Your task to perform on an android device: change notification settings in the gmail app Image 0: 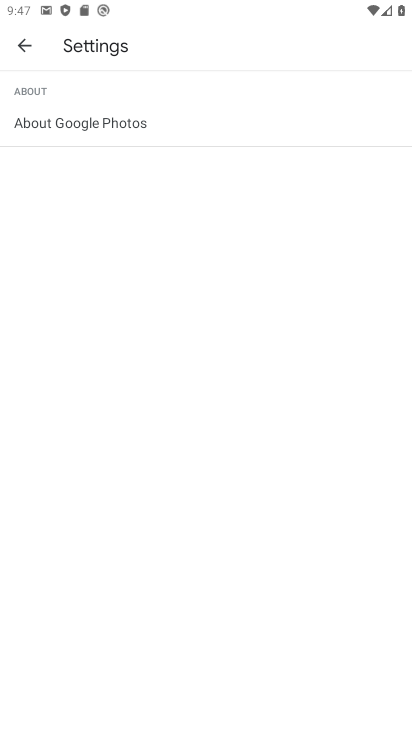
Step 0: drag from (229, 688) to (201, 169)
Your task to perform on an android device: change notification settings in the gmail app Image 1: 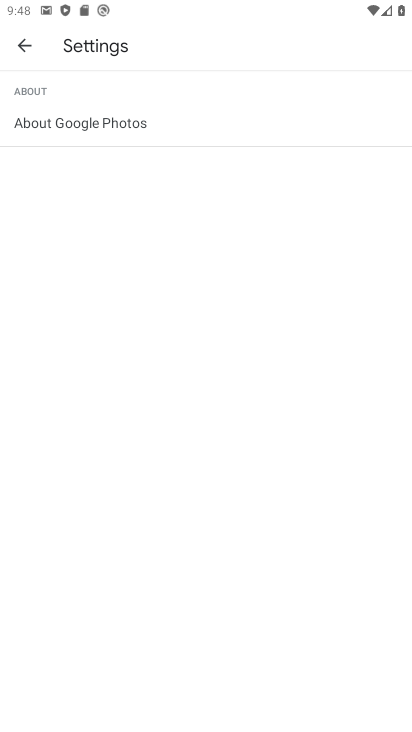
Step 1: click (158, 204)
Your task to perform on an android device: change notification settings in the gmail app Image 2: 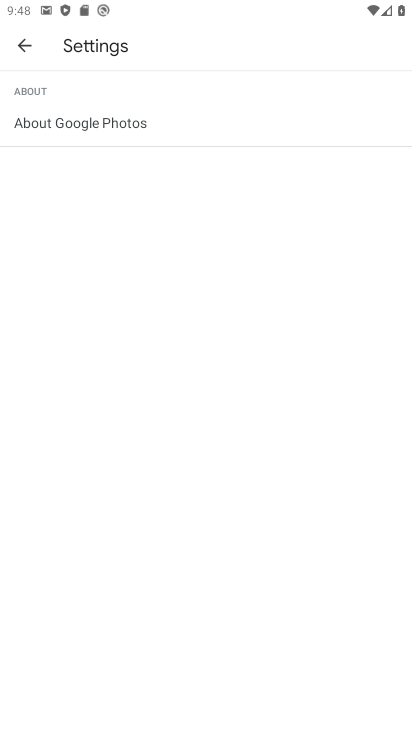
Step 2: press home button
Your task to perform on an android device: change notification settings in the gmail app Image 3: 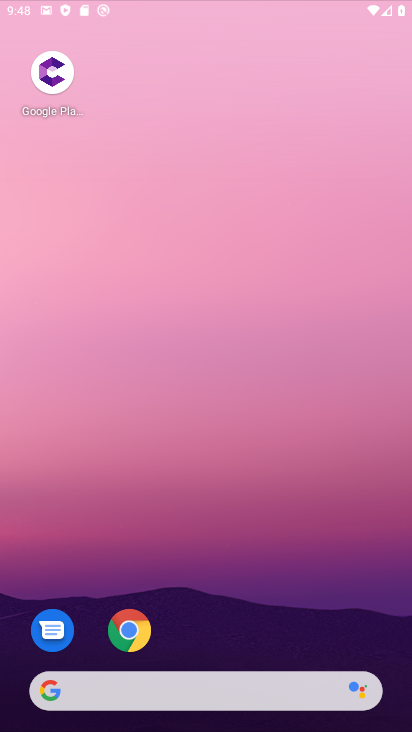
Step 3: drag from (193, 690) to (256, 155)
Your task to perform on an android device: change notification settings in the gmail app Image 4: 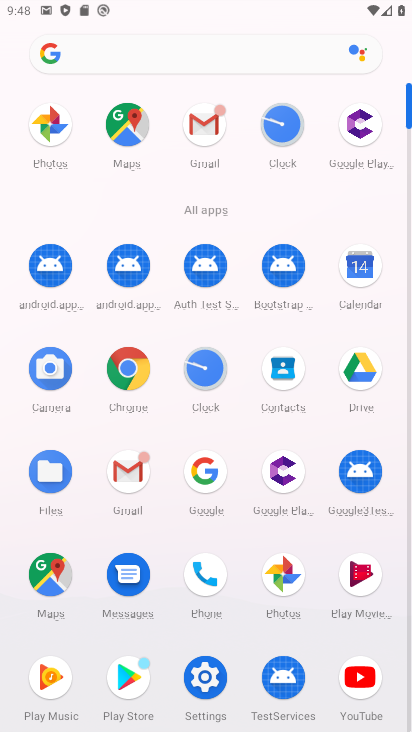
Step 4: click (117, 461)
Your task to perform on an android device: change notification settings in the gmail app Image 5: 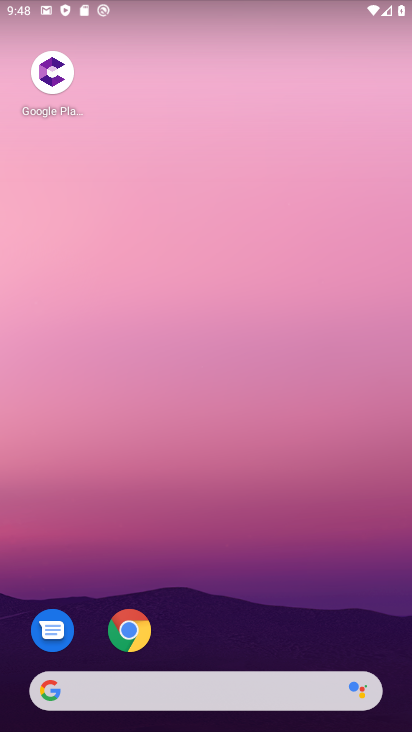
Step 5: drag from (216, 641) to (271, 195)
Your task to perform on an android device: change notification settings in the gmail app Image 6: 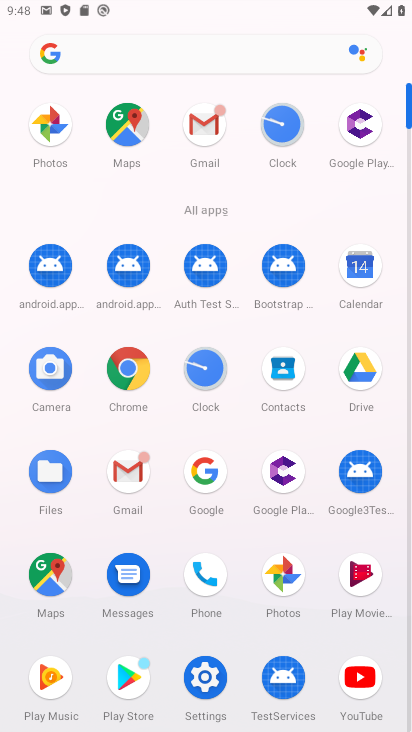
Step 6: click (120, 467)
Your task to perform on an android device: change notification settings in the gmail app Image 7: 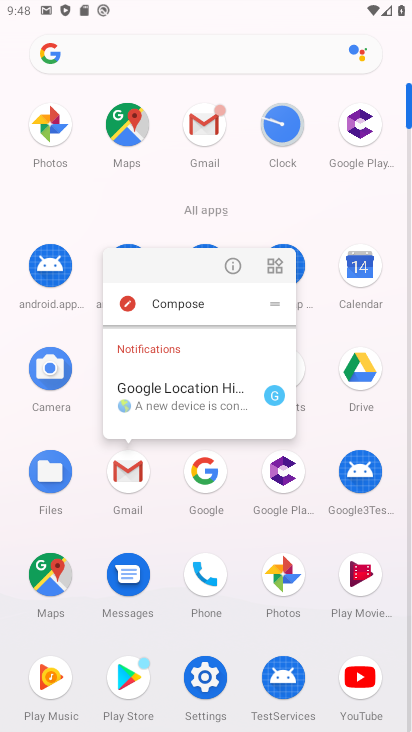
Step 7: click (226, 260)
Your task to perform on an android device: change notification settings in the gmail app Image 8: 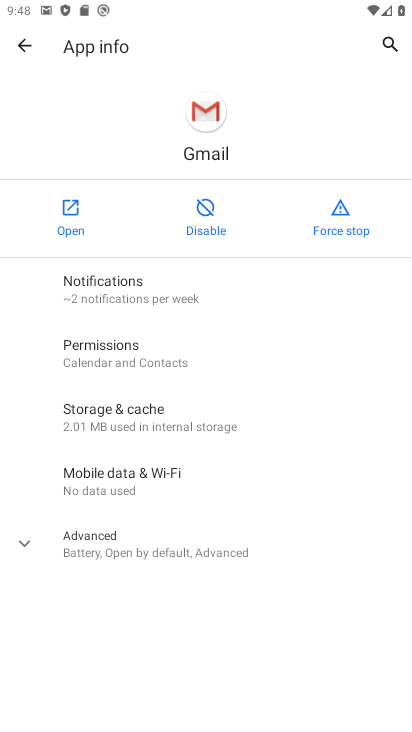
Step 8: click (84, 214)
Your task to perform on an android device: change notification settings in the gmail app Image 9: 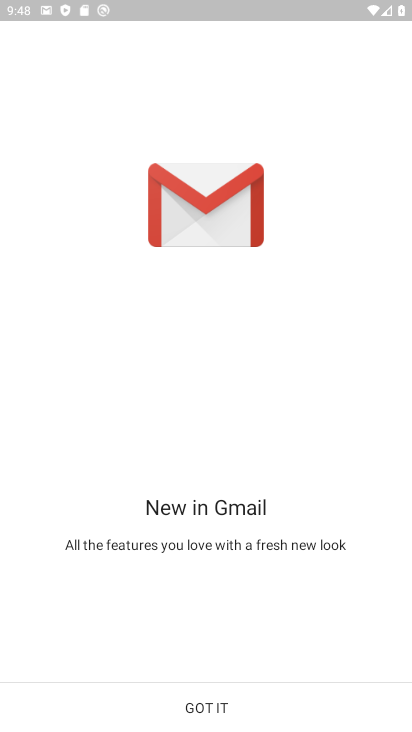
Step 9: click (216, 696)
Your task to perform on an android device: change notification settings in the gmail app Image 10: 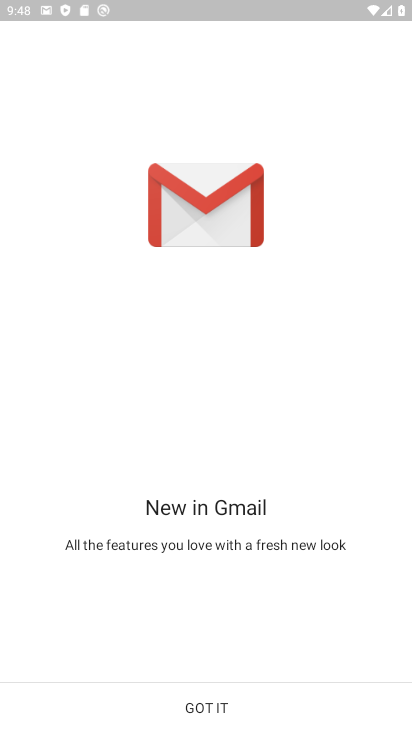
Step 10: click (218, 693)
Your task to perform on an android device: change notification settings in the gmail app Image 11: 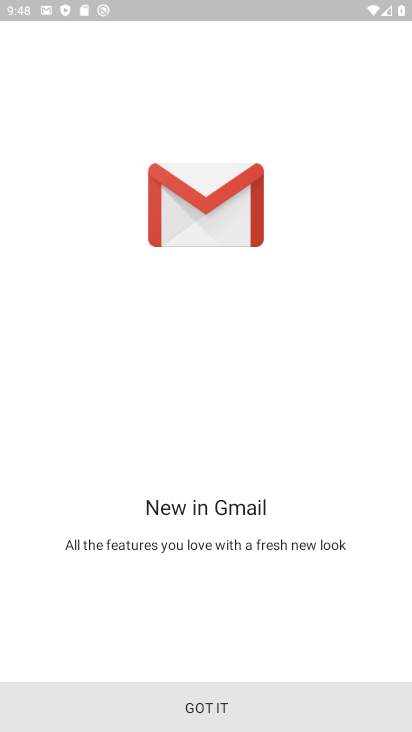
Step 11: click (218, 693)
Your task to perform on an android device: change notification settings in the gmail app Image 12: 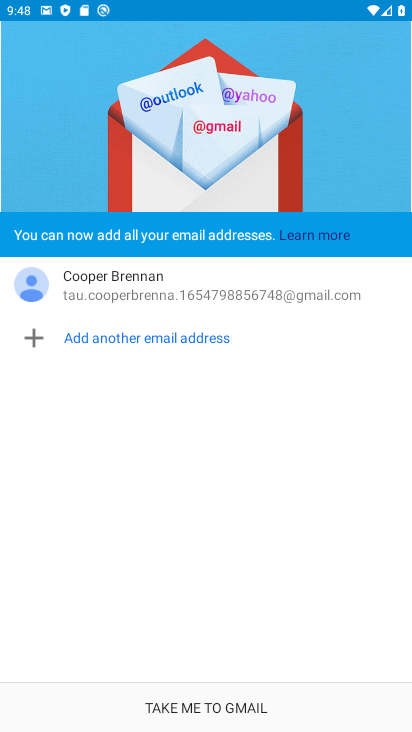
Step 12: click (204, 696)
Your task to perform on an android device: change notification settings in the gmail app Image 13: 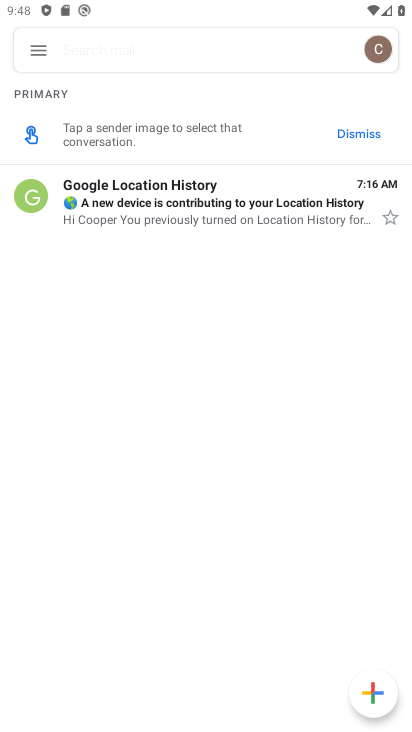
Step 13: drag from (223, 598) to (223, 382)
Your task to perform on an android device: change notification settings in the gmail app Image 14: 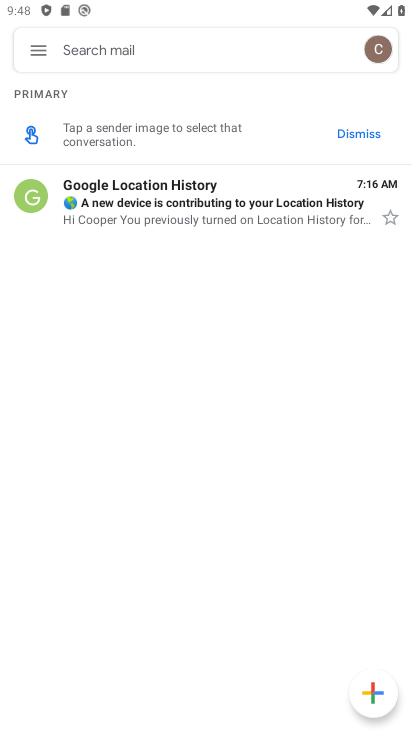
Step 14: click (47, 54)
Your task to perform on an android device: change notification settings in the gmail app Image 15: 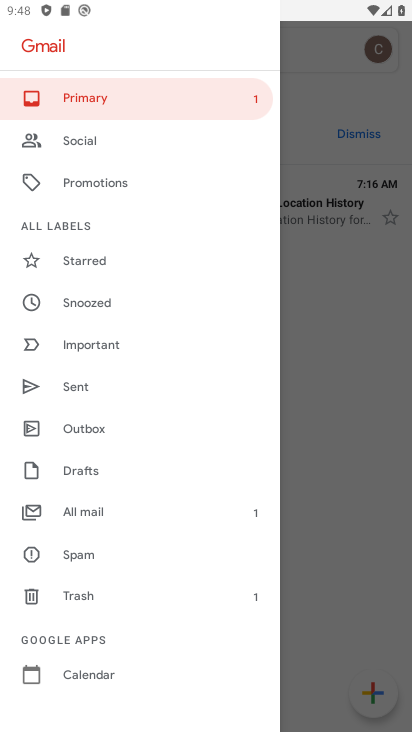
Step 15: drag from (146, 615) to (154, 327)
Your task to perform on an android device: change notification settings in the gmail app Image 16: 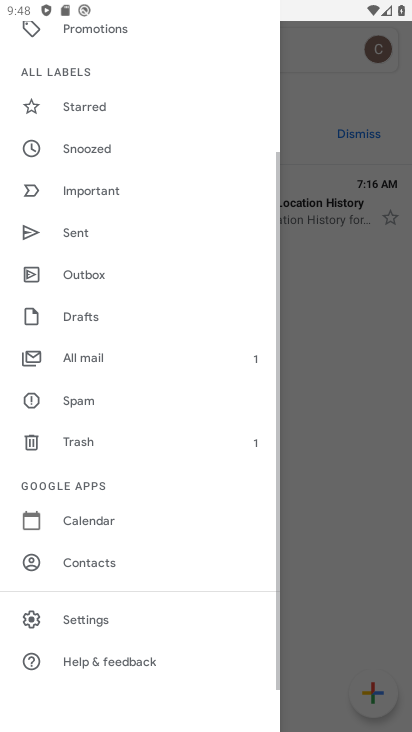
Step 16: click (99, 616)
Your task to perform on an android device: change notification settings in the gmail app Image 17: 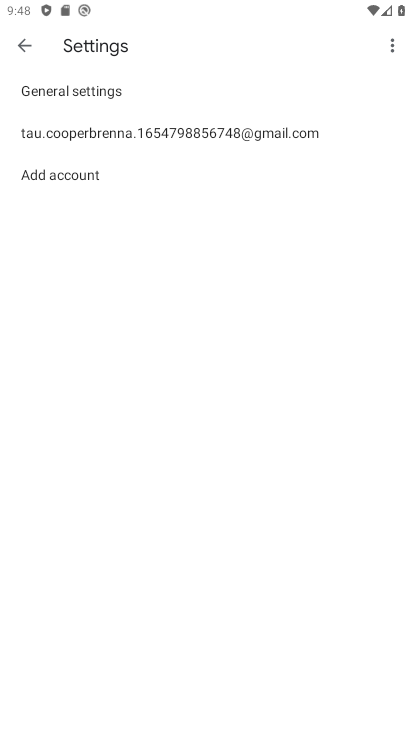
Step 17: click (106, 131)
Your task to perform on an android device: change notification settings in the gmail app Image 18: 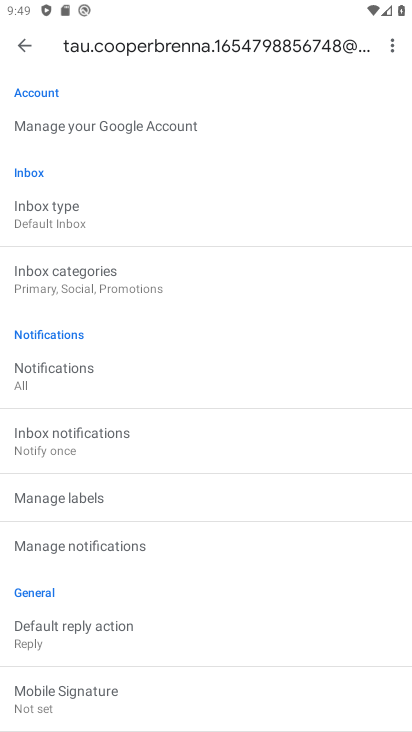
Step 18: click (112, 525)
Your task to perform on an android device: change notification settings in the gmail app Image 19: 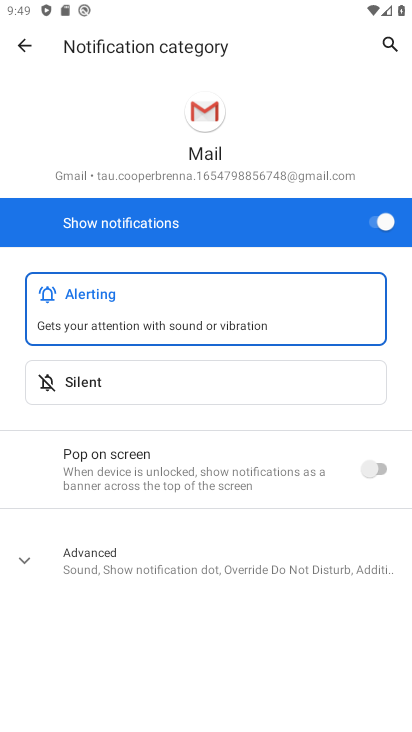
Step 19: drag from (210, 653) to (236, 412)
Your task to perform on an android device: change notification settings in the gmail app Image 20: 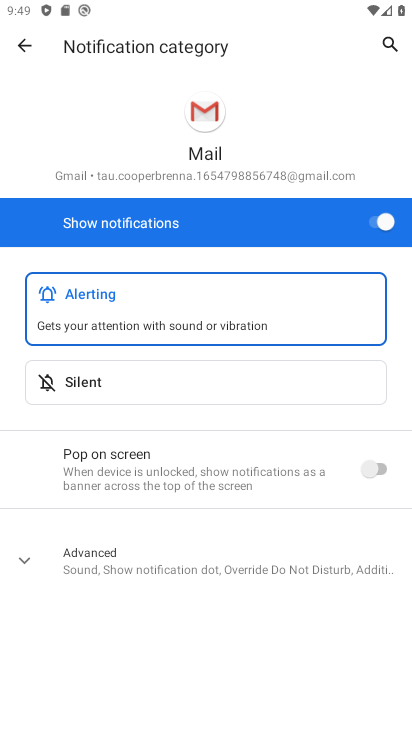
Step 20: click (381, 219)
Your task to perform on an android device: change notification settings in the gmail app Image 21: 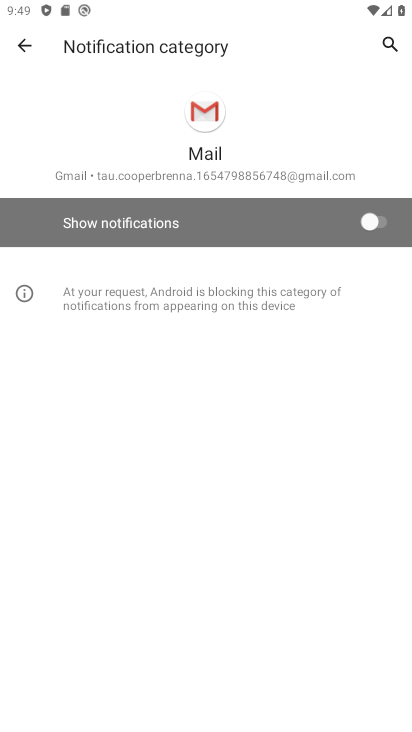
Step 21: task complete